Your task to perform on an android device: toggle data saver in the chrome app Image 0: 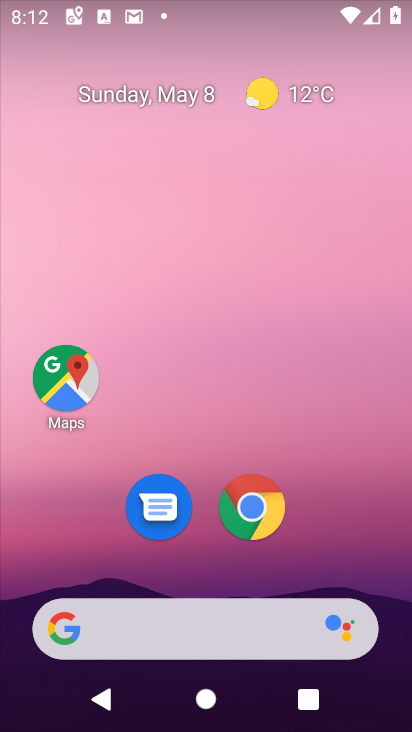
Step 0: click (247, 516)
Your task to perform on an android device: toggle data saver in the chrome app Image 1: 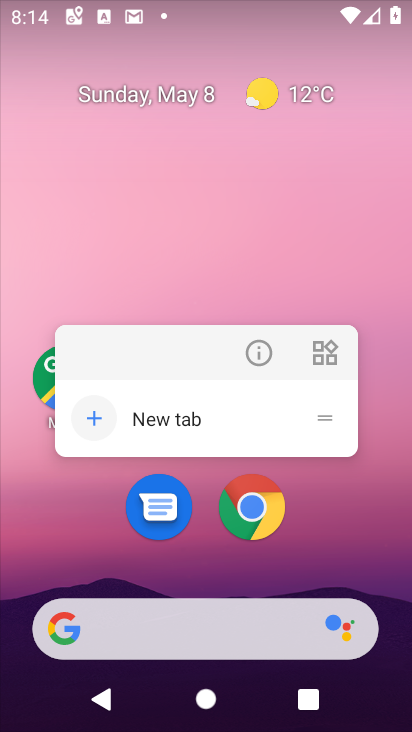
Step 1: click (284, 240)
Your task to perform on an android device: toggle data saver in the chrome app Image 2: 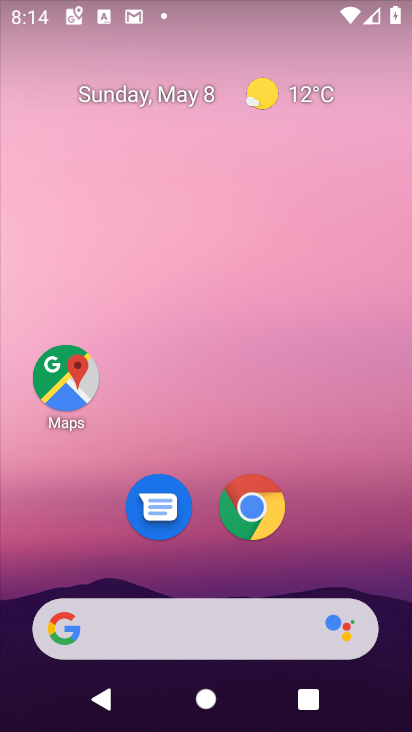
Step 2: click (254, 492)
Your task to perform on an android device: toggle data saver in the chrome app Image 3: 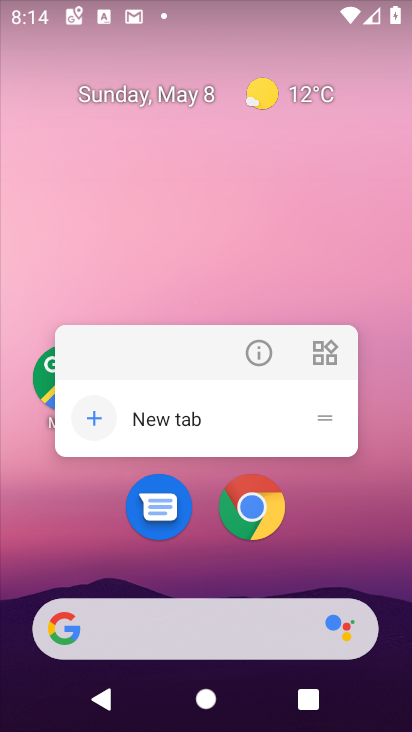
Step 3: click (260, 508)
Your task to perform on an android device: toggle data saver in the chrome app Image 4: 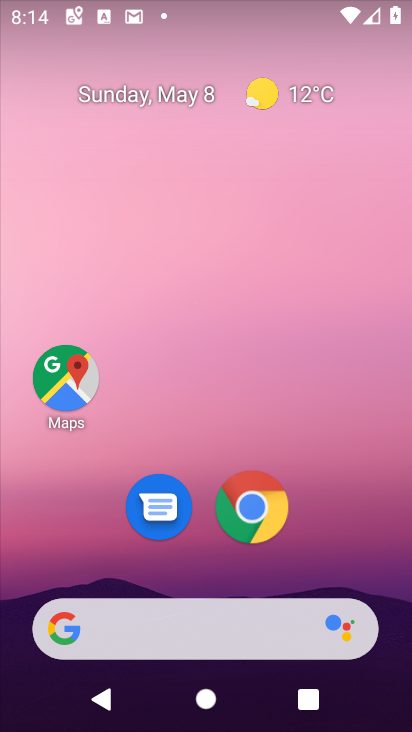
Step 4: click (260, 508)
Your task to perform on an android device: toggle data saver in the chrome app Image 5: 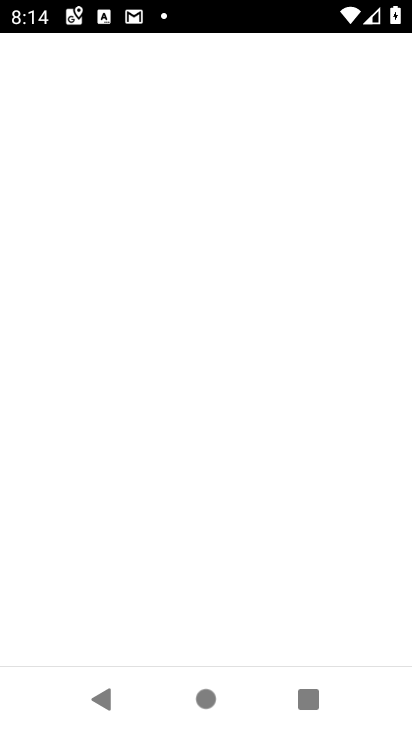
Step 5: click (260, 508)
Your task to perform on an android device: toggle data saver in the chrome app Image 6: 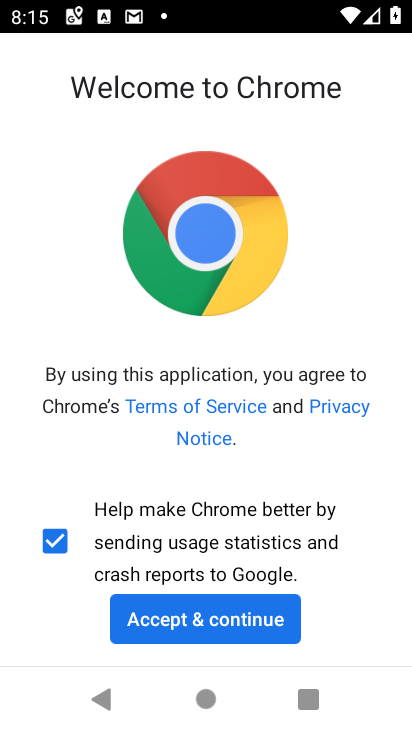
Step 6: click (246, 612)
Your task to perform on an android device: toggle data saver in the chrome app Image 7: 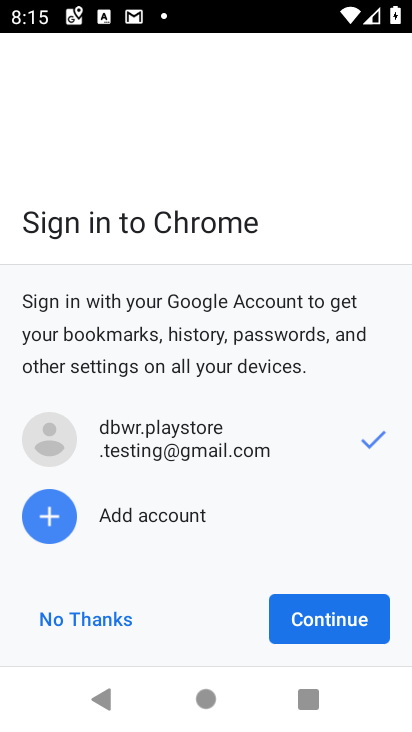
Step 7: click (315, 617)
Your task to perform on an android device: toggle data saver in the chrome app Image 8: 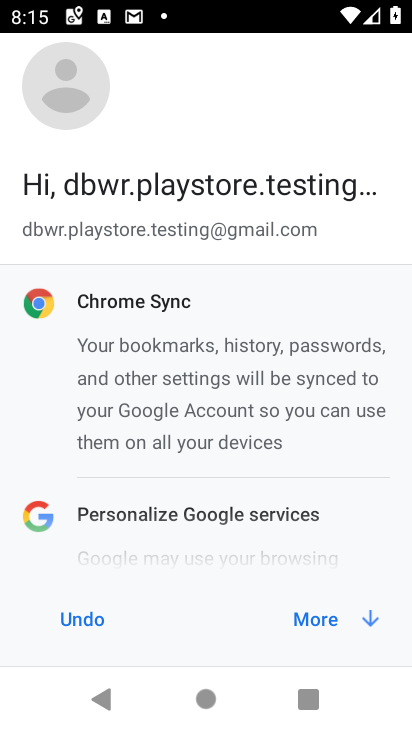
Step 8: click (333, 616)
Your task to perform on an android device: toggle data saver in the chrome app Image 9: 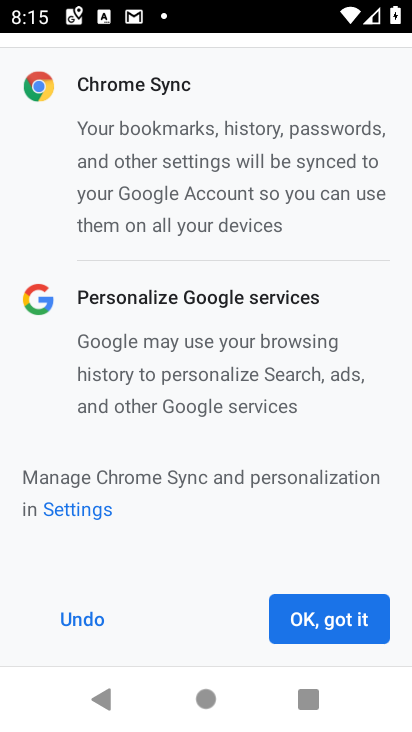
Step 9: click (327, 629)
Your task to perform on an android device: toggle data saver in the chrome app Image 10: 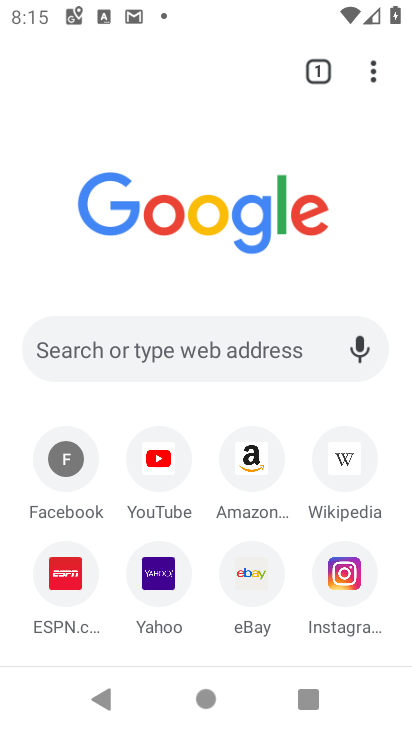
Step 10: click (377, 73)
Your task to perform on an android device: toggle data saver in the chrome app Image 11: 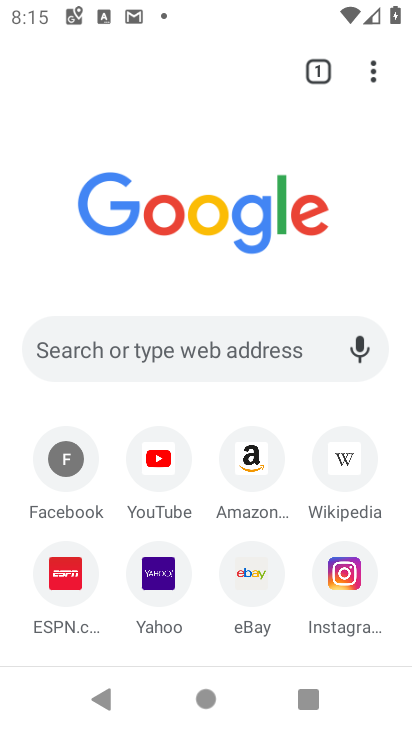
Step 11: drag from (369, 73) to (211, 529)
Your task to perform on an android device: toggle data saver in the chrome app Image 12: 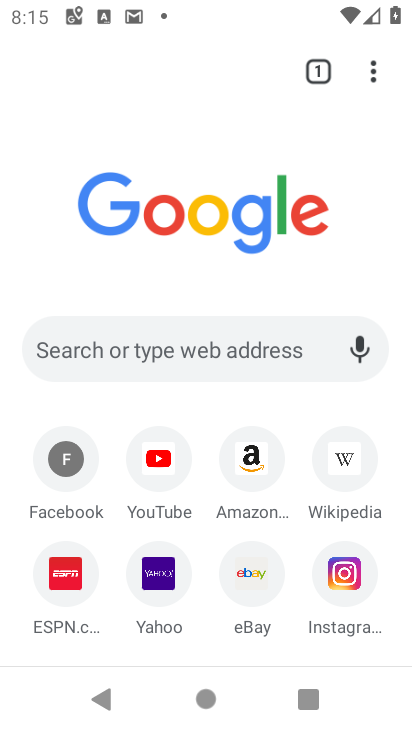
Step 12: drag from (369, 67) to (274, 501)
Your task to perform on an android device: toggle data saver in the chrome app Image 13: 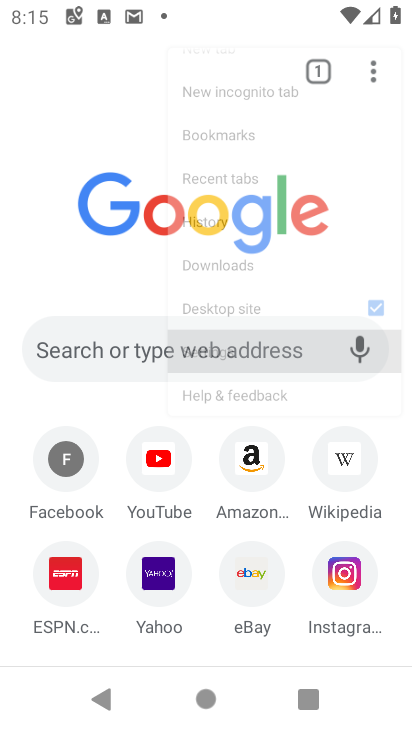
Step 13: click (274, 501)
Your task to perform on an android device: toggle data saver in the chrome app Image 14: 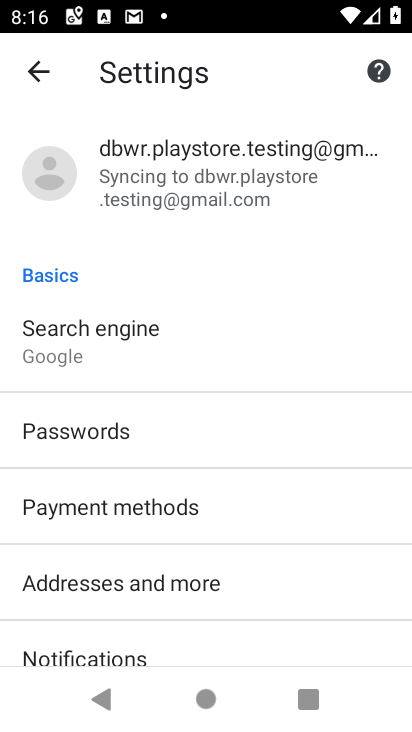
Step 14: drag from (272, 638) to (246, 291)
Your task to perform on an android device: toggle data saver in the chrome app Image 15: 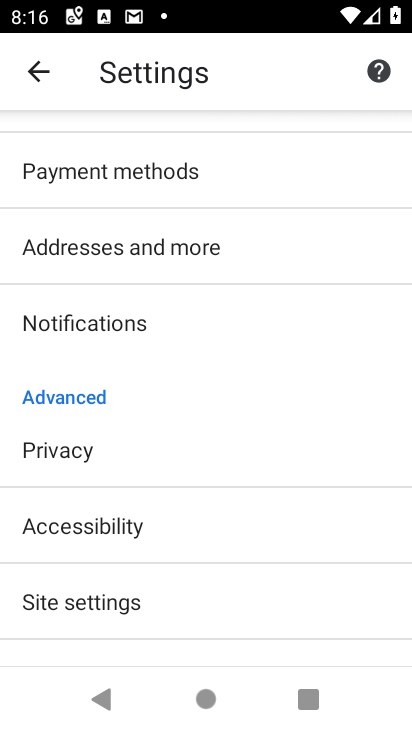
Step 15: drag from (157, 598) to (144, 223)
Your task to perform on an android device: toggle data saver in the chrome app Image 16: 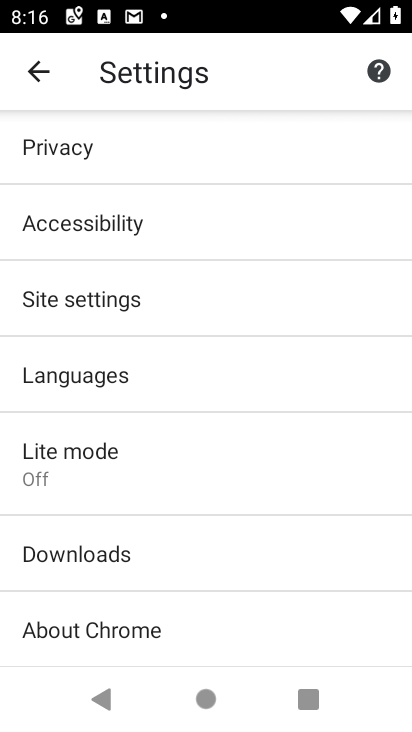
Step 16: click (117, 460)
Your task to perform on an android device: toggle data saver in the chrome app Image 17: 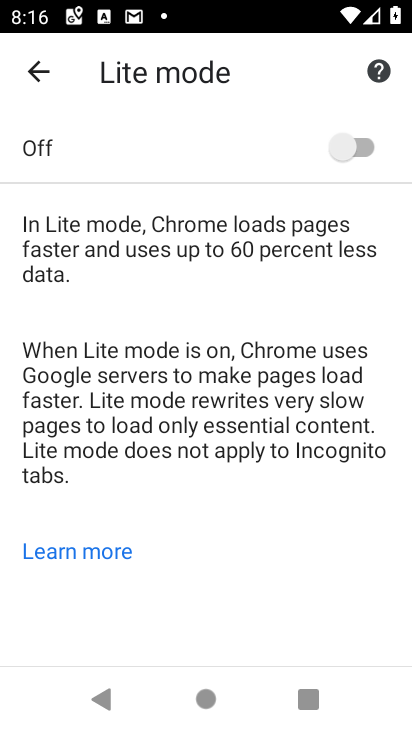
Step 17: click (368, 134)
Your task to perform on an android device: toggle data saver in the chrome app Image 18: 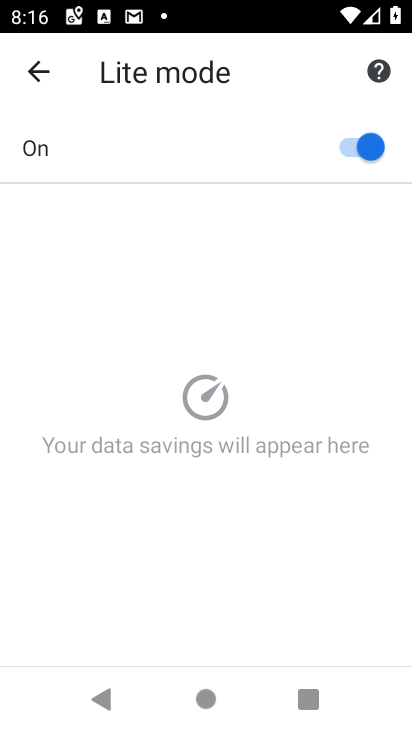
Step 18: task complete